Your task to perform on an android device: open a bookmark in the chrome app Image 0: 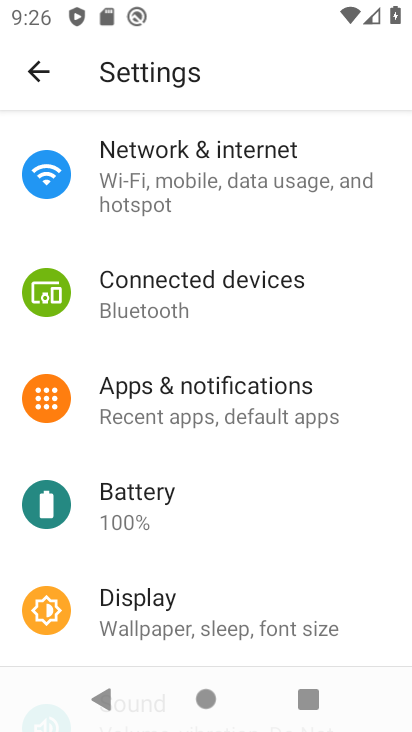
Step 0: drag from (194, 284) to (195, 541)
Your task to perform on an android device: open a bookmark in the chrome app Image 1: 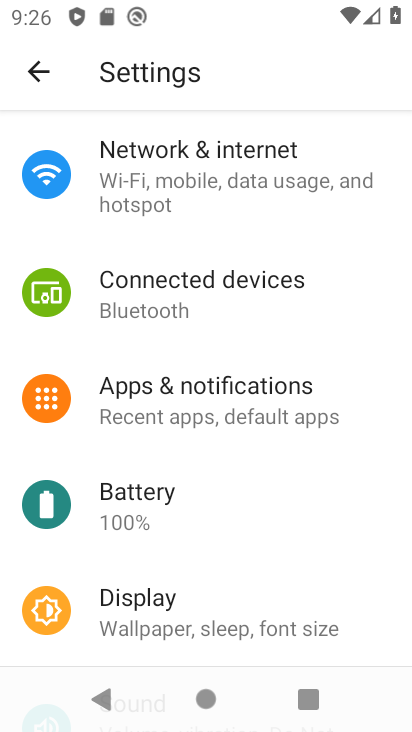
Step 1: drag from (190, 643) to (189, 208)
Your task to perform on an android device: open a bookmark in the chrome app Image 2: 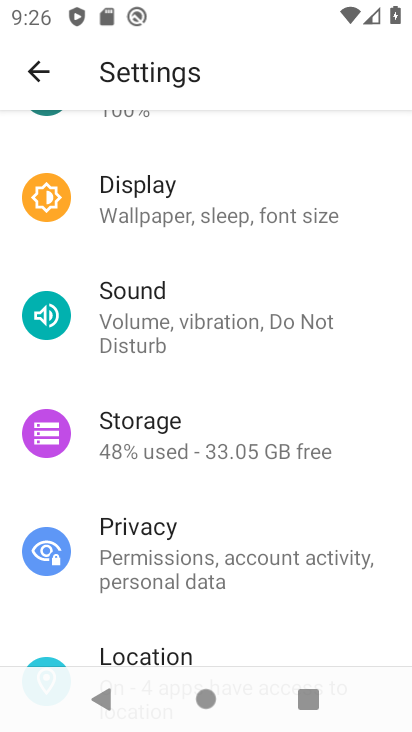
Step 2: press home button
Your task to perform on an android device: open a bookmark in the chrome app Image 3: 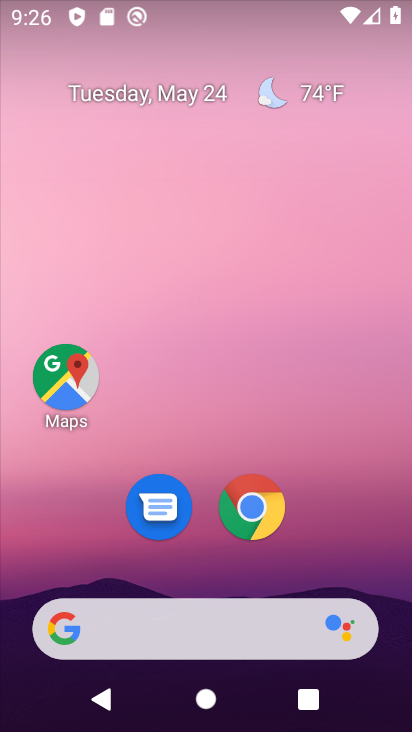
Step 3: click (254, 524)
Your task to perform on an android device: open a bookmark in the chrome app Image 4: 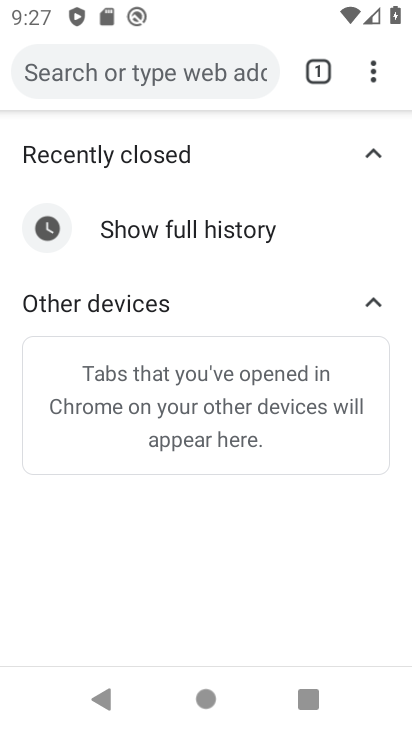
Step 4: click (375, 78)
Your task to perform on an android device: open a bookmark in the chrome app Image 5: 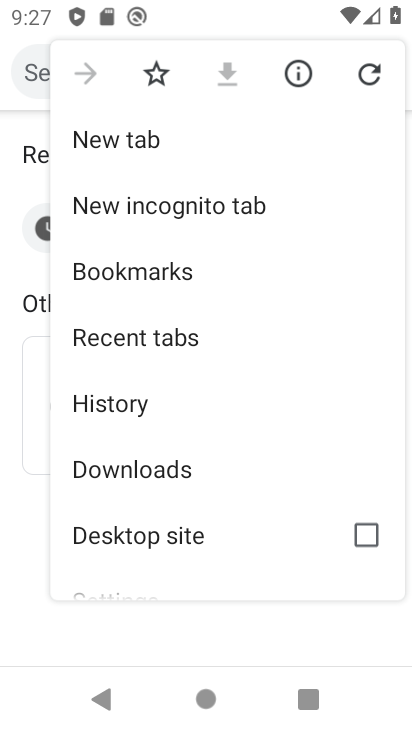
Step 5: click (121, 273)
Your task to perform on an android device: open a bookmark in the chrome app Image 6: 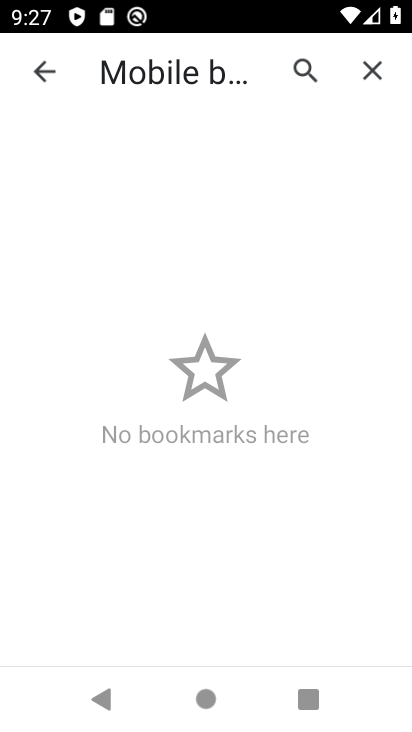
Step 6: task complete